Your task to perform on an android device: turn notification dots off Image 0: 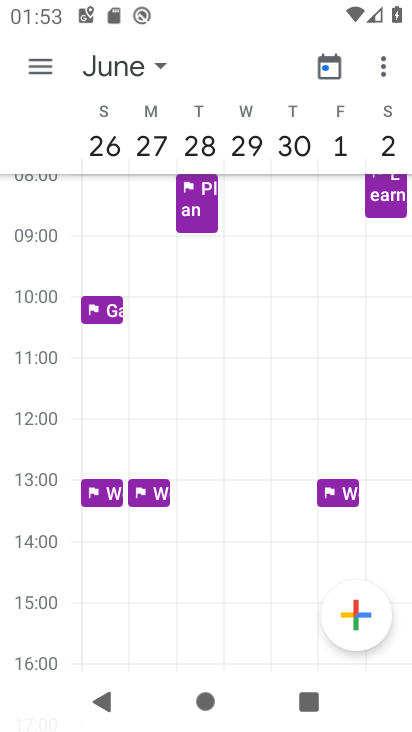
Step 0: press home button
Your task to perform on an android device: turn notification dots off Image 1: 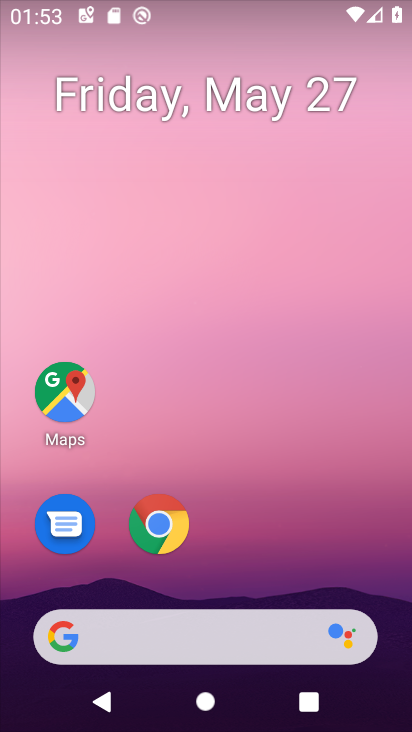
Step 1: drag from (244, 566) to (275, 20)
Your task to perform on an android device: turn notification dots off Image 2: 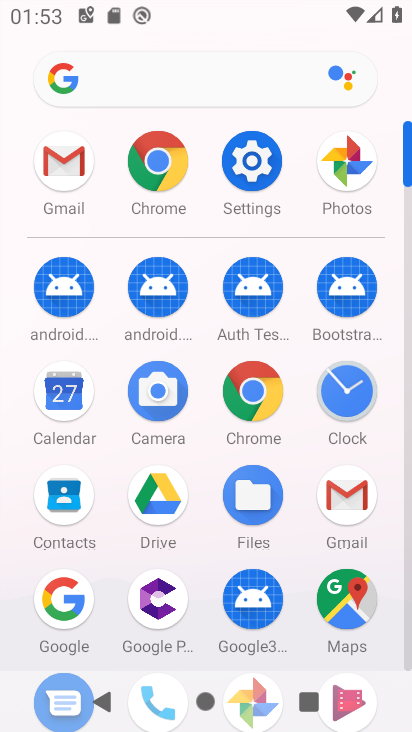
Step 2: click (261, 164)
Your task to perform on an android device: turn notification dots off Image 3: 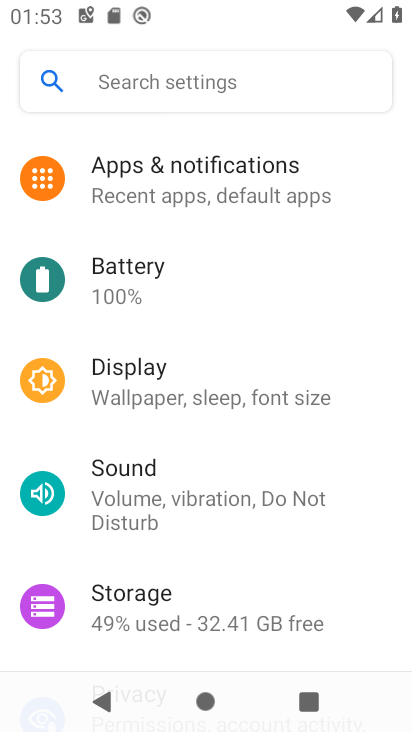
Step 3: click (276, 180)
Your task to perform on an android device: turn notification dots off Image 4: 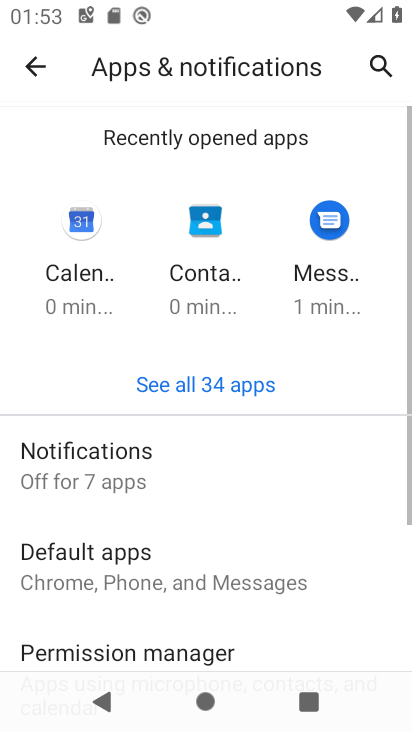
Step 4: click (143, 450)
Your task to perform on an android device: turn notification dots off Image 5: 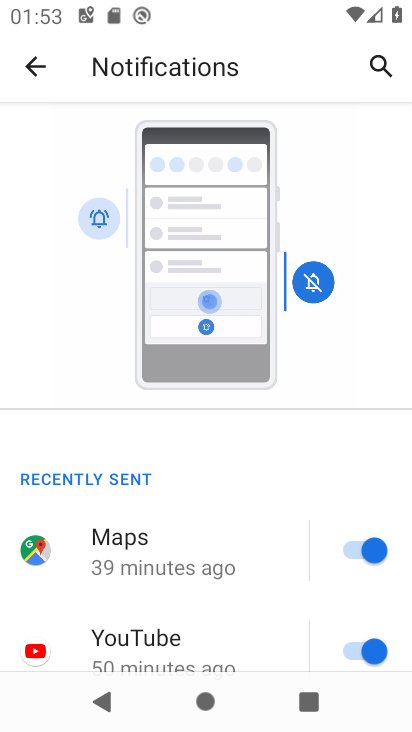
Step 5: drag from (249, 600) to (276, 154)
Your task to perform on an android device: turn notification dots off Image 6: 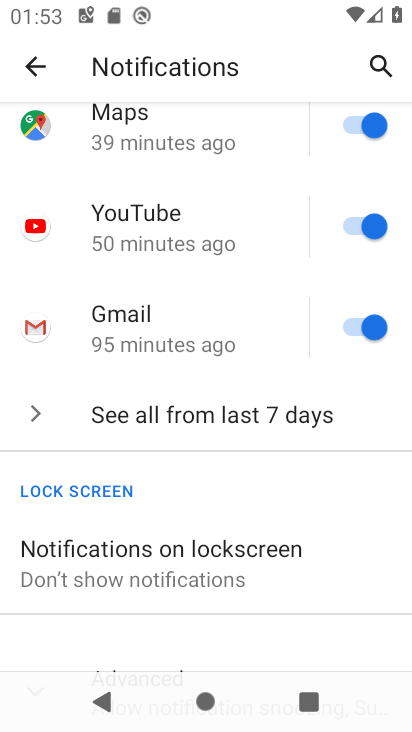
Step 6: drag from (273, 517) to (279, 230)
Your task to perform on an android device: turn notification dots off Image 7: 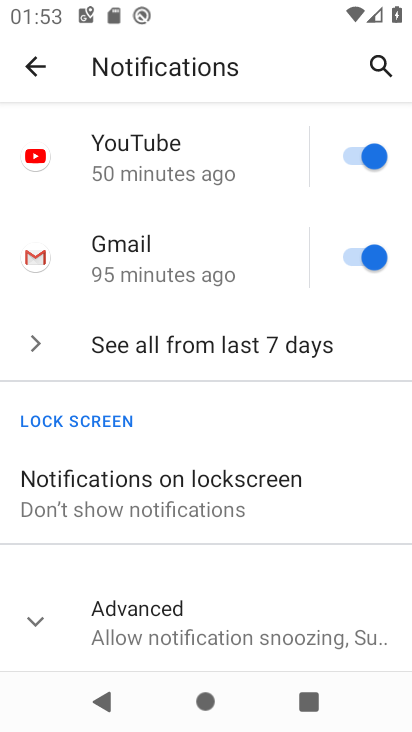
Step 7: click (39, 621)
Your task to perform on an android device: turn notification dots off Image 8: 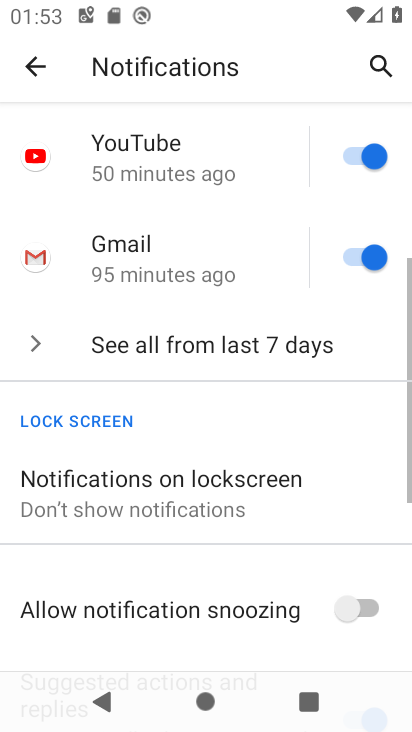
Step 8: task complete